Your task to perform on an android device: turn off smart reply in the gmail app Image 0: 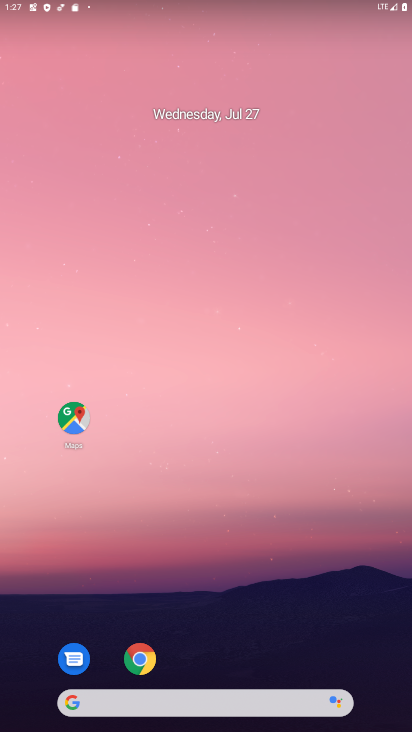
Step 0: drag from (203, 682) to (203, 73)
Your task to perform on an android device: turn off smart reply in the gmail app Image 1: 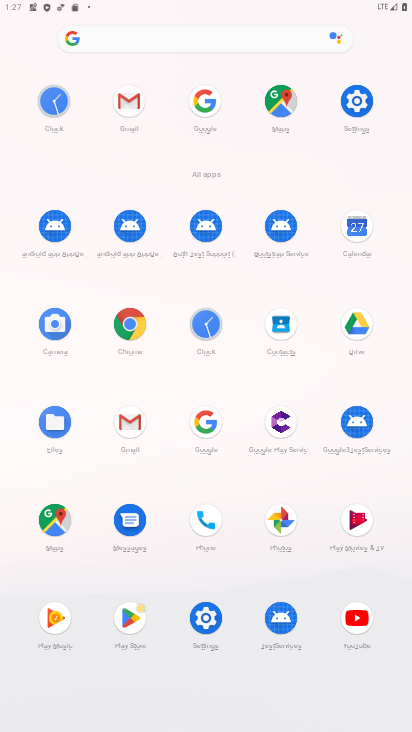
Step 1: click (123, 426)
Your task to perform on an android device: turn off smart reply in the gmail app Image 2: 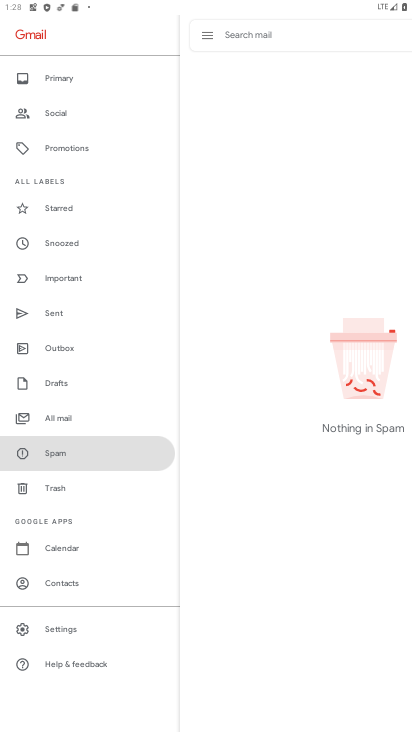
Step 2: click (61, 630)
Your task to perform on an android device: turn off smart reply in the gmail app Image 3: 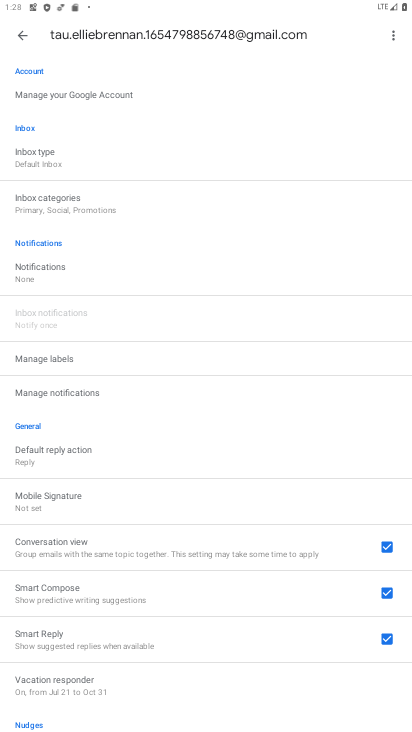
Step 3: click (382, 636)
Your task to perform on an android device: turn off smart reply in the gmail app Image 4: 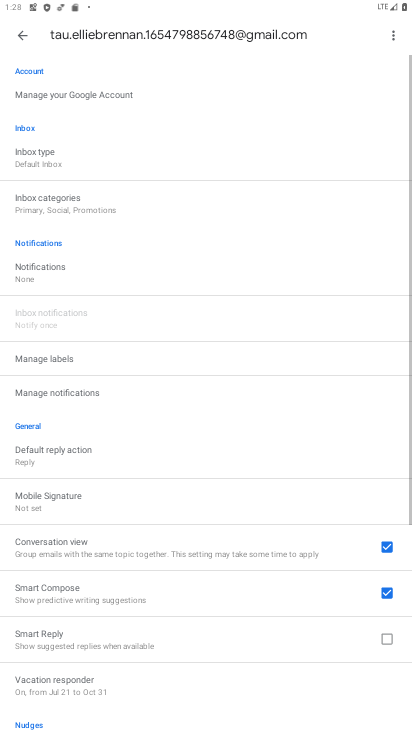
Step 4: task complete